Your task to perform on an android device: empty trash in google photos Image 0: 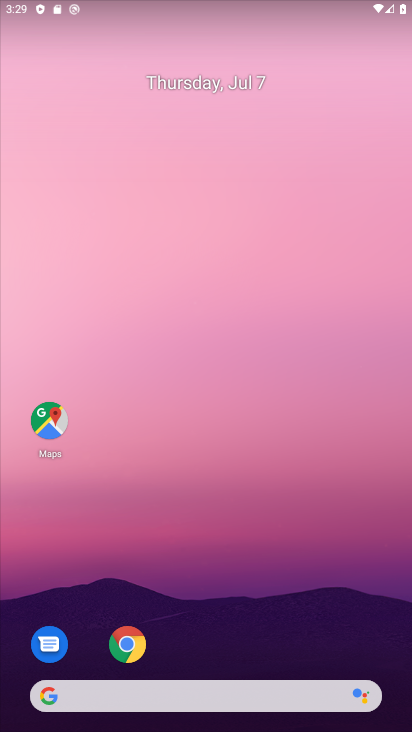
Step 0: press home button
Your task to perform on an android device: empty trash in google photos Image 1: 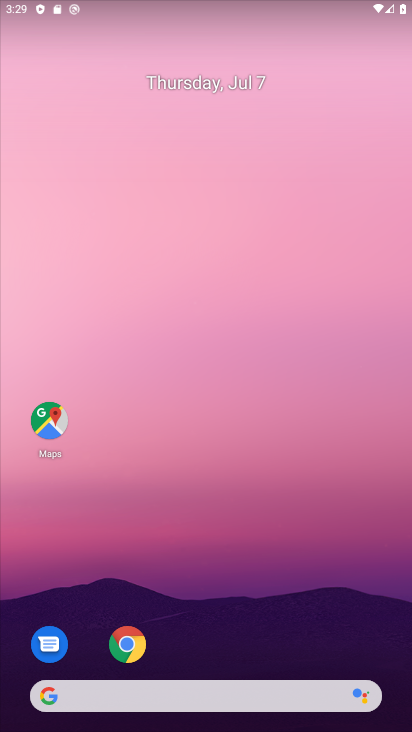
Step 1: drag from (294, 644) to (272, 192)
Your task to perform on an android device: empty trash in google photos Image 2: 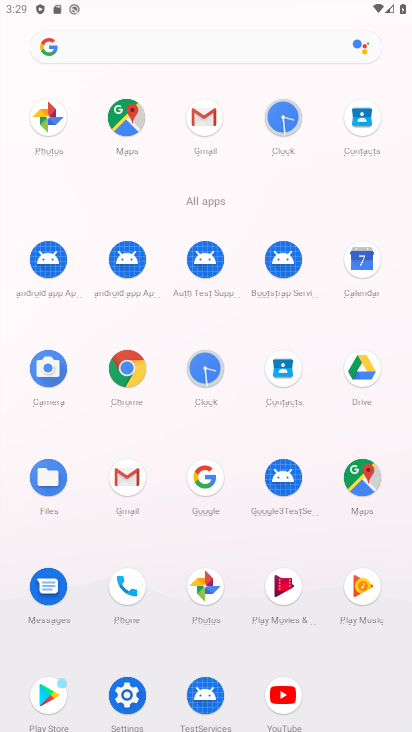
Step 2: click (200, 594)
Your task to perform on an android device: empty trash in google photos Image 3: 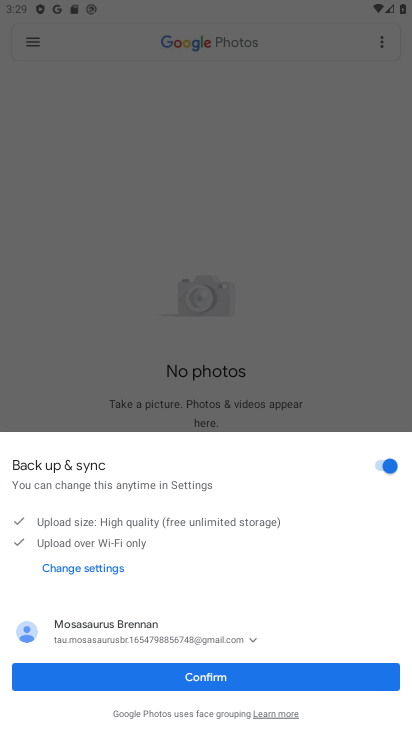
Step 3: press back button
Your task to perform on an android device: empty trash in google photos Image 4: 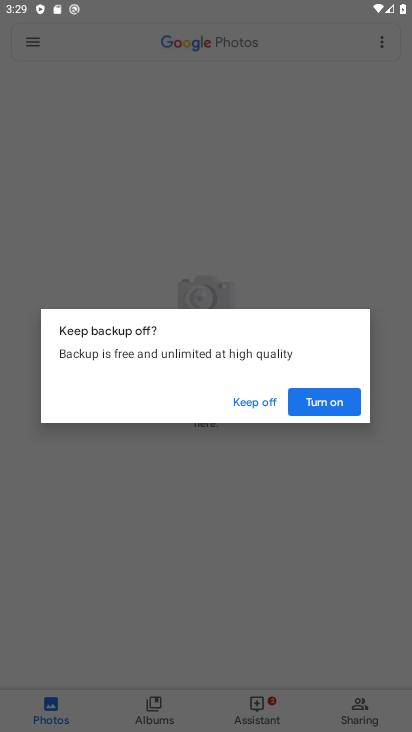
Step 4: click (274, 408)
Your task to perform on an android device: empty trash in google photos Image 5: 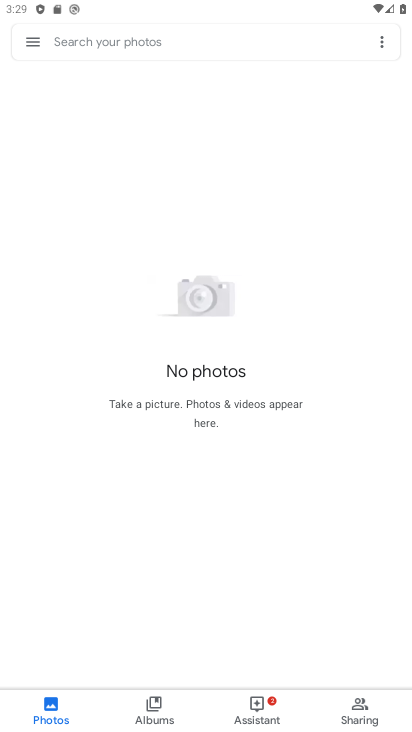
Step 5: click (32, 39)
Your task to perform on an android device: empty trash in google photos Image 6: 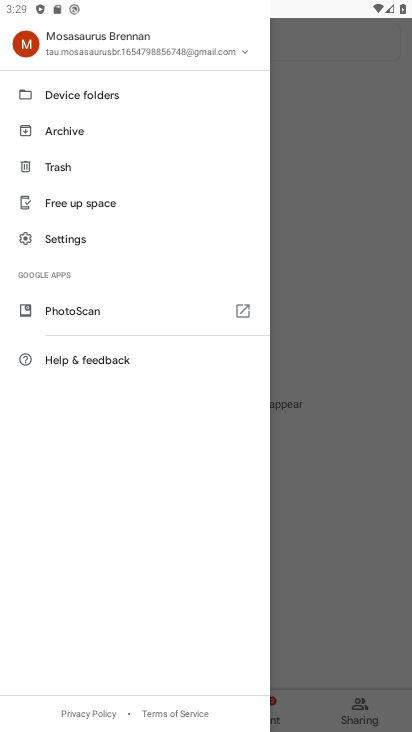
Step 6: click (55, 163)
Your task to perform on an android device: empty trash in google photos Image 7: 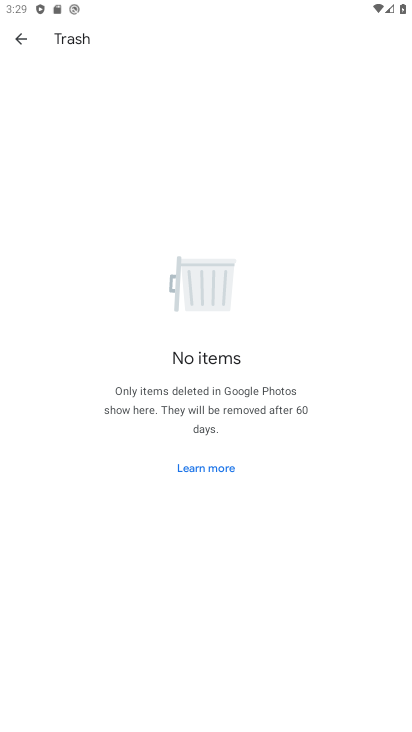
Step 7: task complete